Your task to perform on an android device: open the mobile data screen to see how much data has been used Image 0: 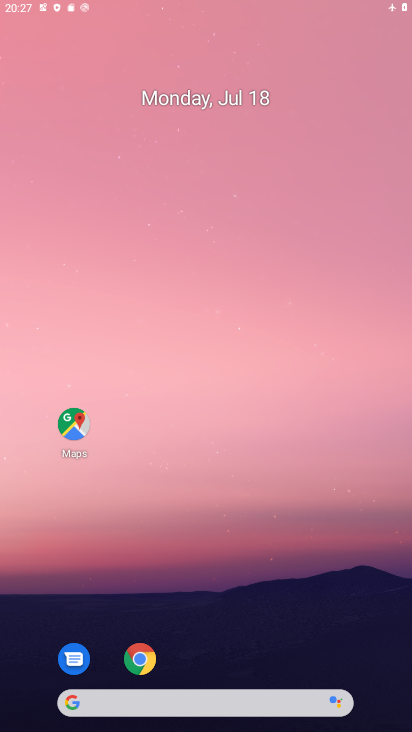
Step 0: drag from (207, 347) to (191, 72)
Your task to perform on an android device: open the mobile data screen to see how much data has been used Image 1: 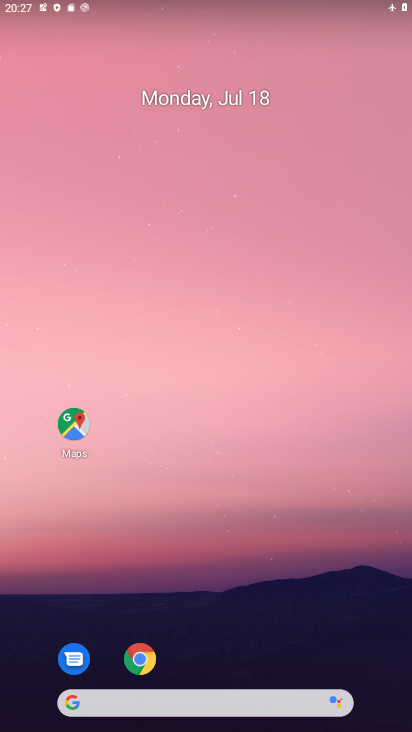
Step 1: drag from (237, 696) to (216, 176)
Your task to perform on an android device: open the mobile data screen to see how much data has been used Image 2: 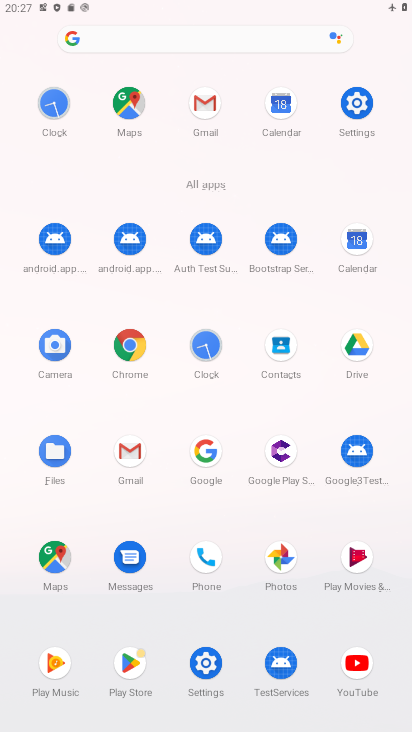
Step 2: click (360, 94)
Your task to perform on an android device: open the mobile data screen to see how much data has been used Image 3: 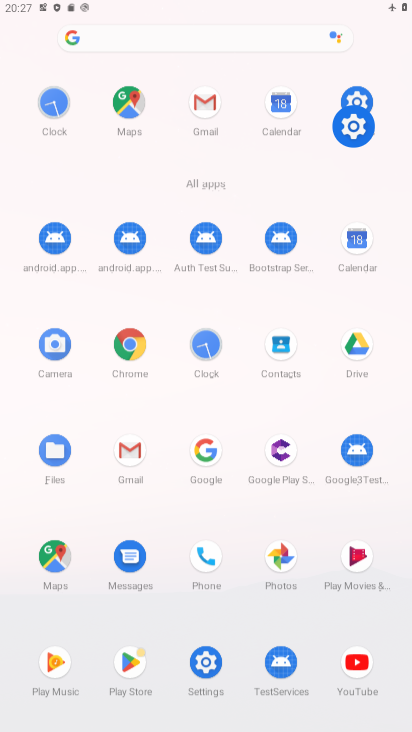
Step 3: click (360, 94)
Your task to perform on an android device: open the mobile data screen to see how much data has been used Image 4: 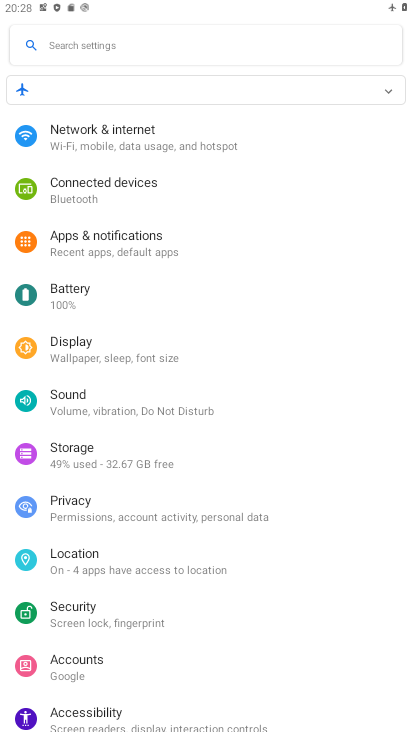
Step 4: click (89, 141)
Your task to perform on an android device: open the mobile data screen to see how much data has been used Image 5: 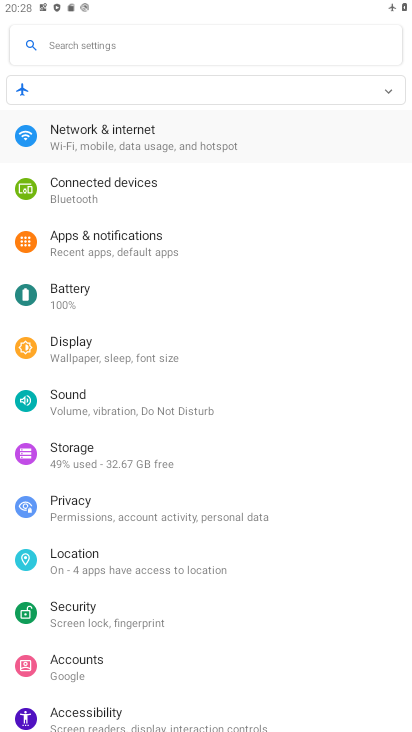
Step 5: click (89, 141)
Your task to perform on an android device: open the mobile data screen to see how much data has been used Image 6: 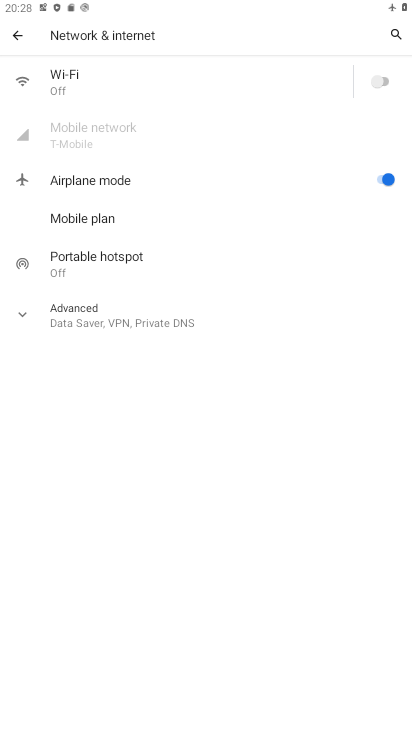
Step 6: click (384, 180)
Your task to perform on an android device: open the mobile data screen to see how much data has been used Image 7: 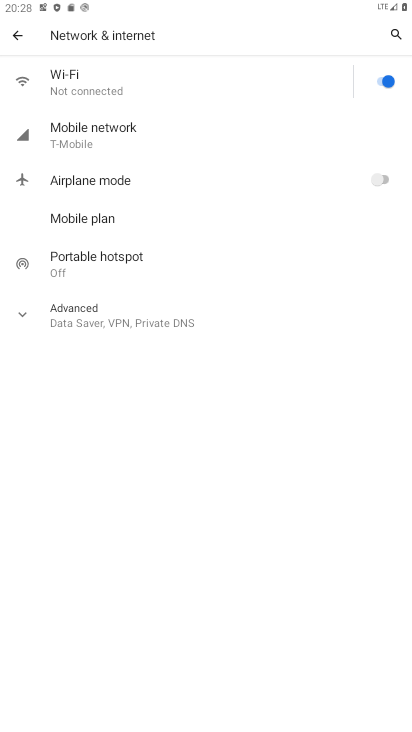
Step 7: click (78, 125)
Your task to perform on an android device: open the mobile data screen to see how much data has been used Image 8: 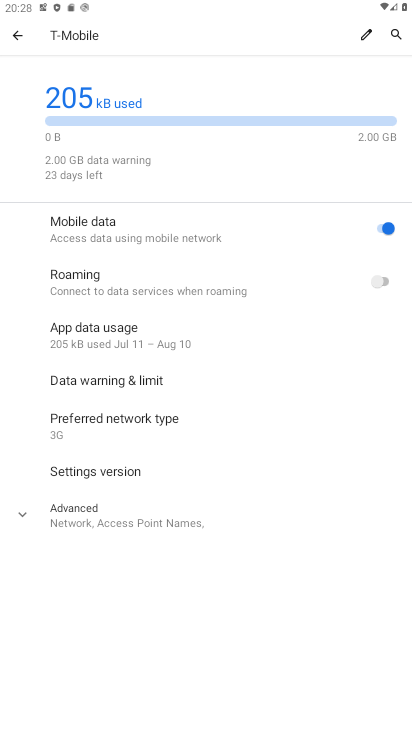
Step 8: task complete